Your task to perform on an android device: Open sound settings Image 0: 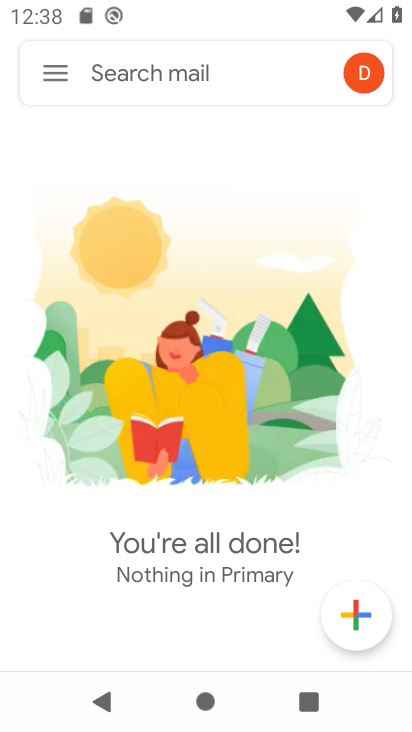
Step 0: press home button
Your task to perform on an android device: Open sound settings Image 1: 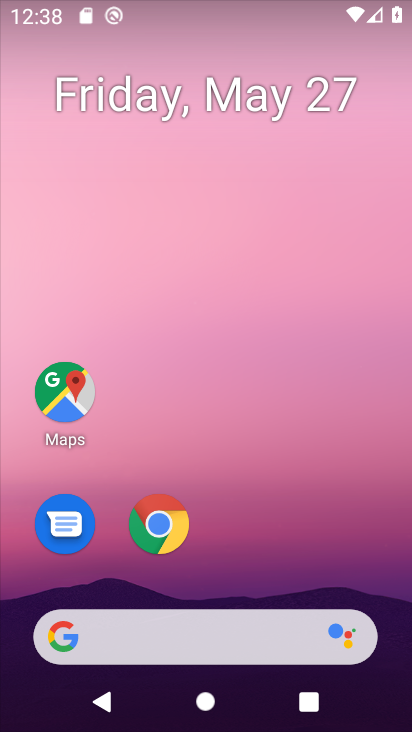
Step 1: drag from (245, 534) to (273, 3)
Your task to perform on an android device: Open sound settings Image 2: 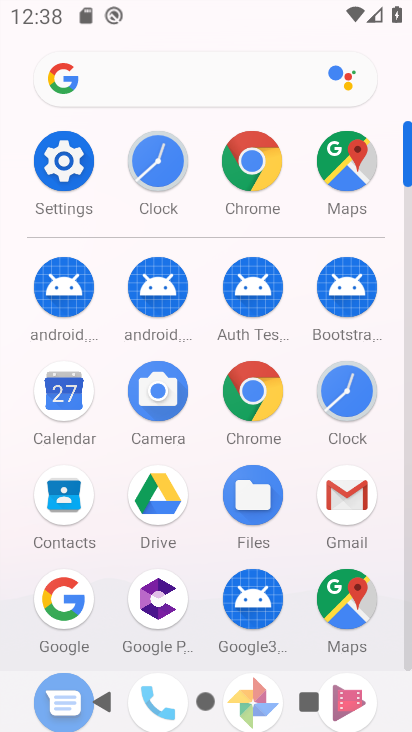
Step 2: click (77, 165)
Your task to perform on an android device: Open sound settings Image 3: 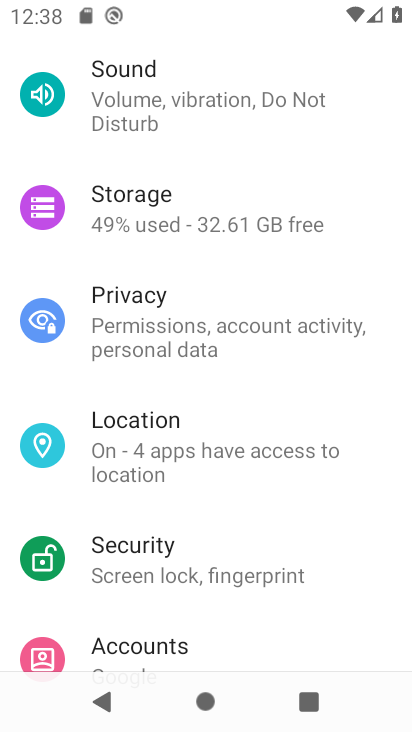
Step 3: click (237, 99)
Your task to perform on an android device: Open sound settings Image 4: 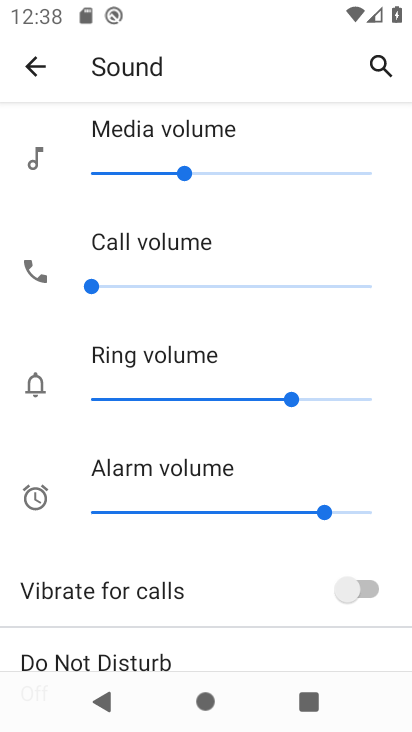
Step 4: task complete